Your task to perform on an android device: turn on wifi Image 0: 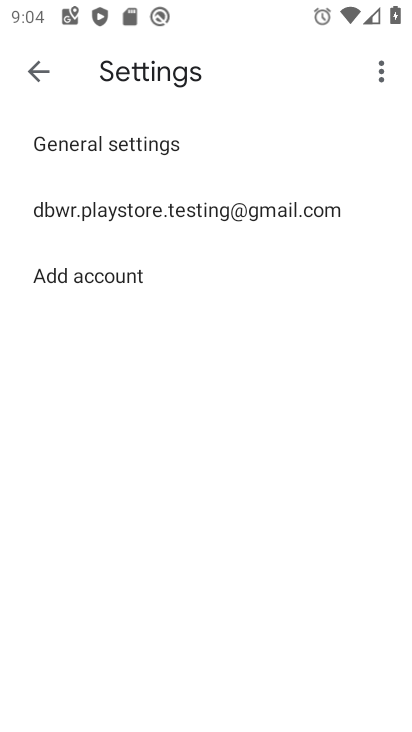
Step 0: press home button
Your task to perform on an android device: turn on wifi Image 1: 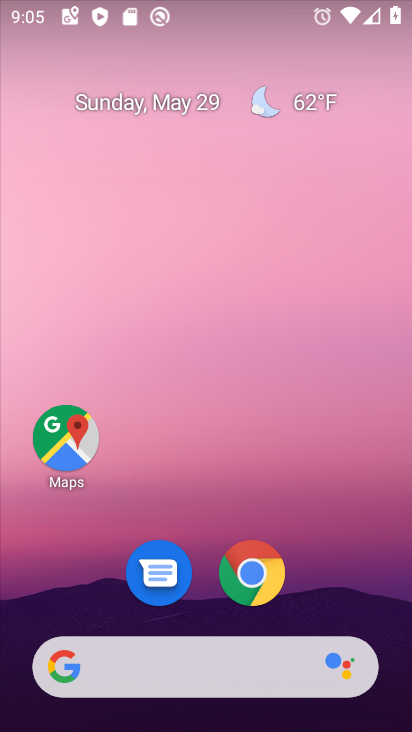
Step 1: task complete